Your task to perform on an android device: toggle airplane mode Image 0: 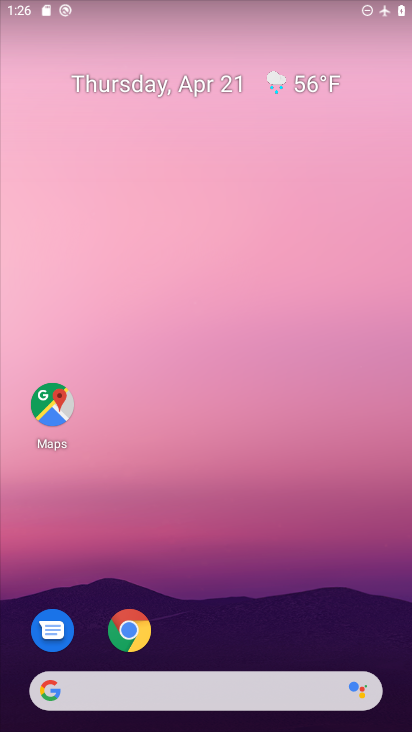
Step 0: drag from (259, 680) to (216, 266)
Your task to perform on an android device: toggle airplane mode Image 1: 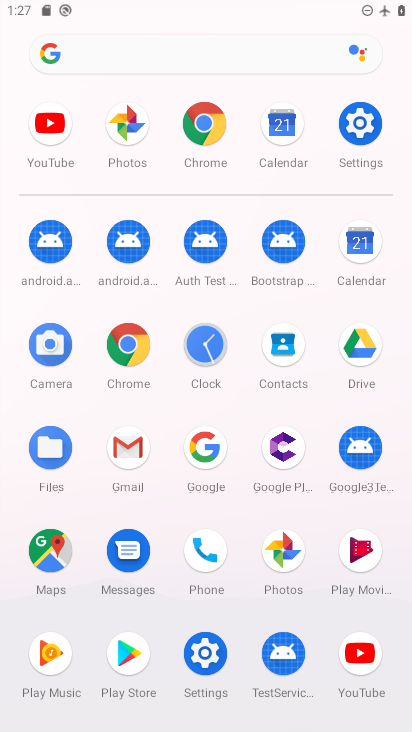
Step 1: click (356, 120)
Your task to perform on an android device: toggle airplane mode Image 2: 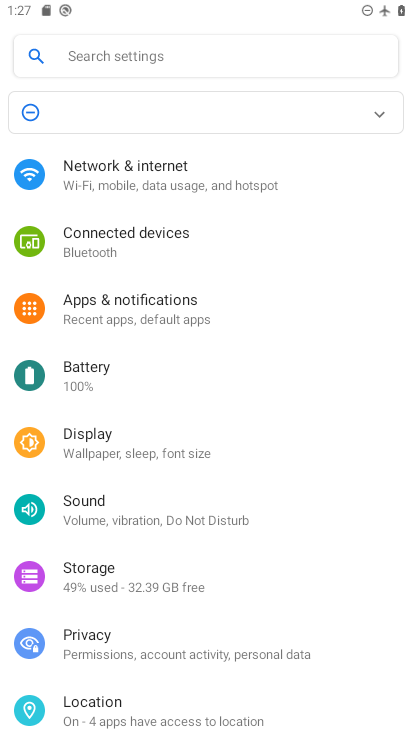
Step 2: click (187, 182)
Your task to perform on an android device: toggle airplane mode Image 3: 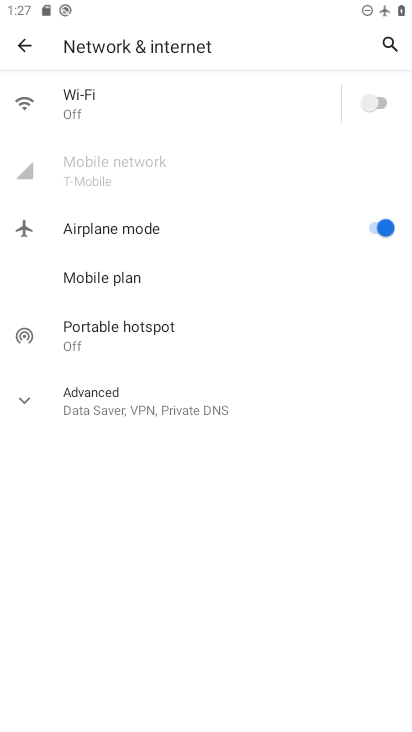
Step 3: click (378, 229)
Your task to perform on an android device: toggle airplane mode Image 4: 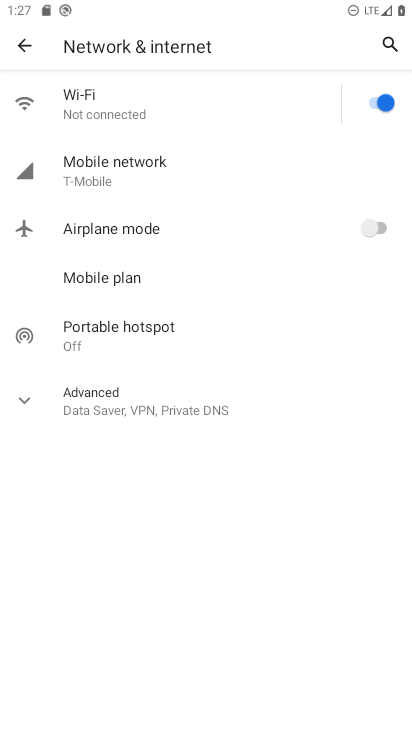
Step 4: task complete